Your task to perform on an android device: Search for vegetarian restaurants on Maps Image 0: 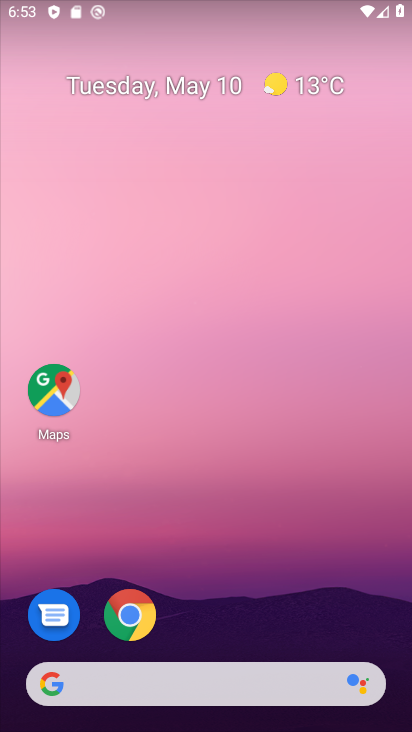
Step 0: drag from (310, 546) to (323, 180)
Your task to perform on an android device: Search for vegetarian restaurants on Maps Image 1: 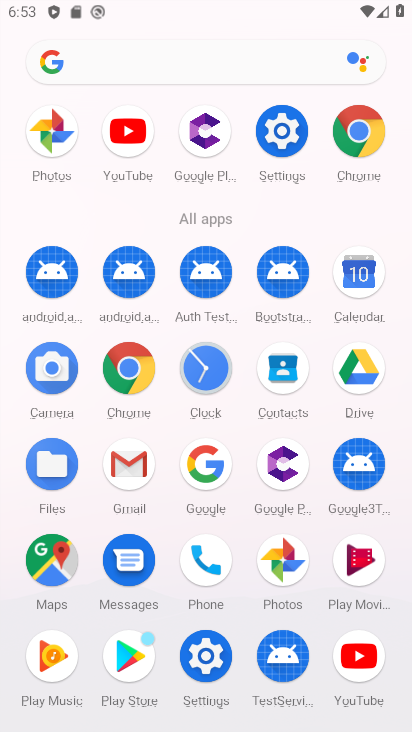
Step 1: click (38, 569)
Your task to perform on an android device: Search for vegetarian restaurants on Maps Image 2: 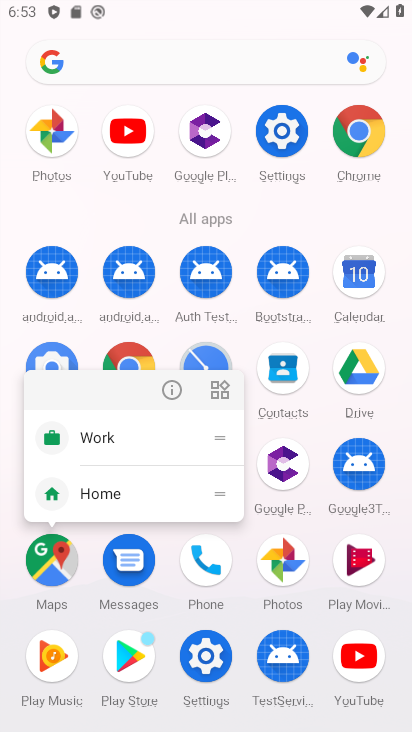
Step 2: click (71, 573)
Your task to perform on an android device: Search for vegetarian restaurants on Maps Image 3: 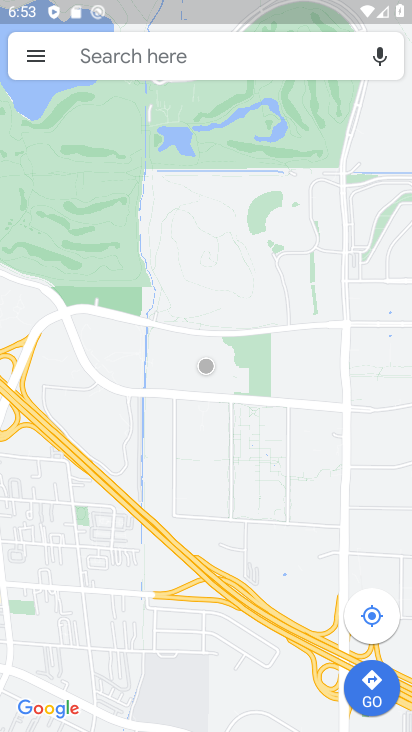
Step 3: click (179, 45)
Your task to perform on an android device: Search for vegetarian restaurants on Maps Image 4: 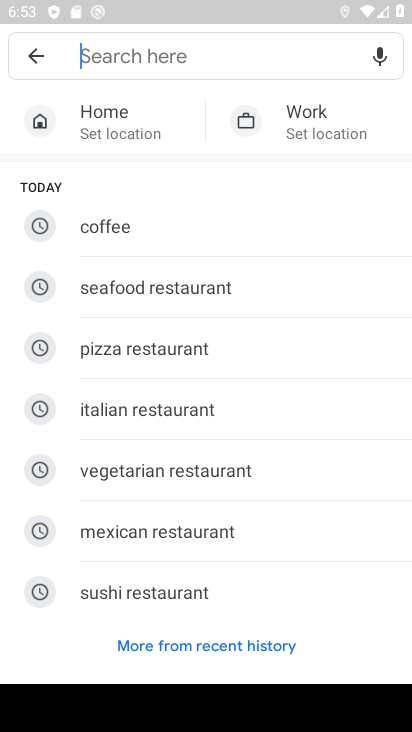
Step 4: click (212, 472)
Your task to perform on an android device: Search for vegetarian restaurants on Maps Image 5: 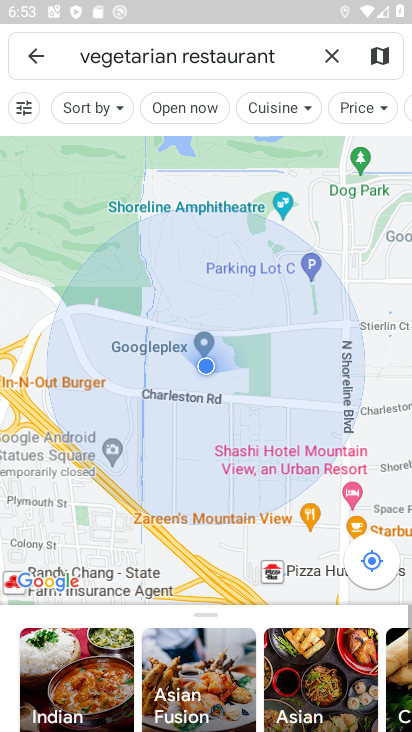
Step 5: task complete